Your task to perform on an android device: What's the weather? Image 0: 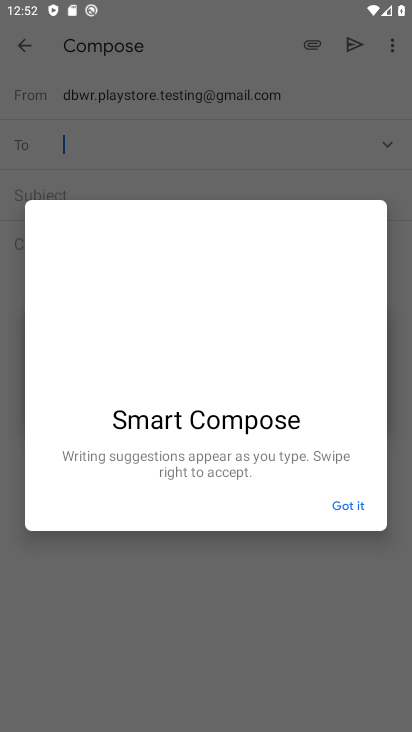
Step 0: press back button
Your task to perform on an android device: What's the weather? Image 1: 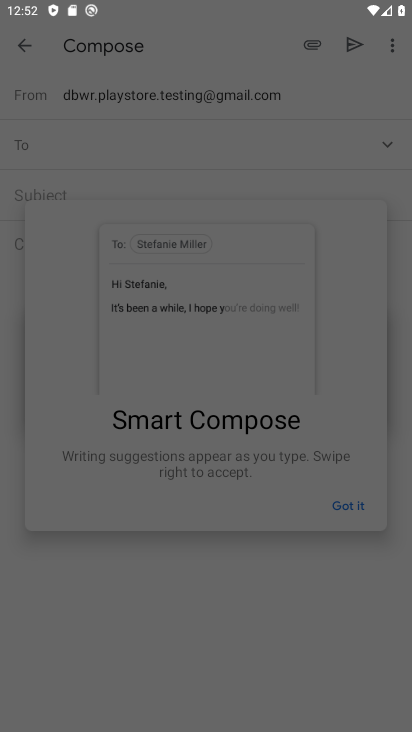
Step 1: press home button
Your task to perform on an android device: What's the weather? Image 2: 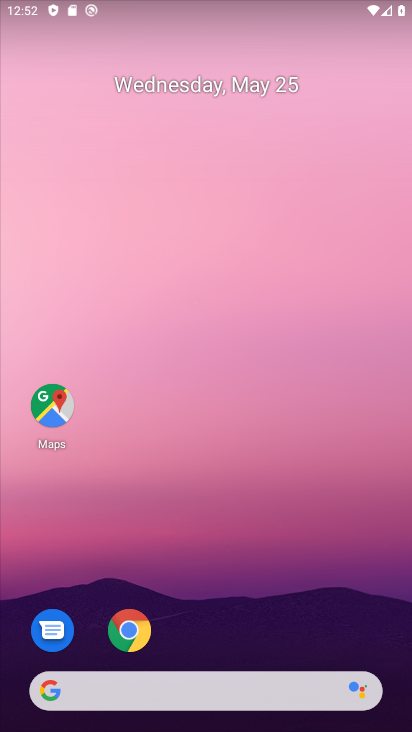
Step 2: drag from (13, 218) to (403, 268)
Your task to perform on an android device: What's the weather? Image 3: 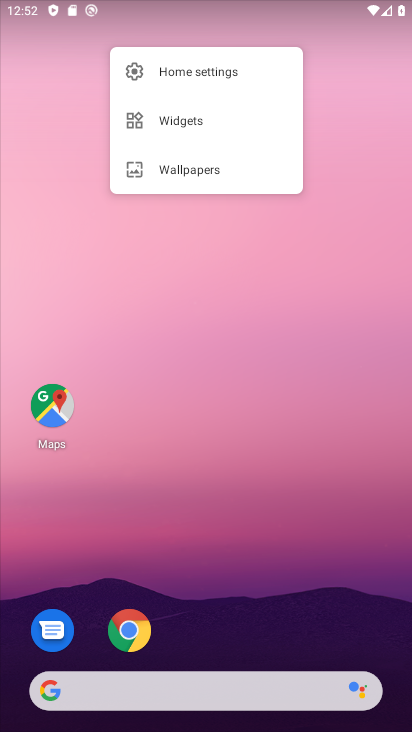
Step 3: drag from (191, 300) to (400, 442)
Your task to perform on an android device: What's the weather? Image 4: 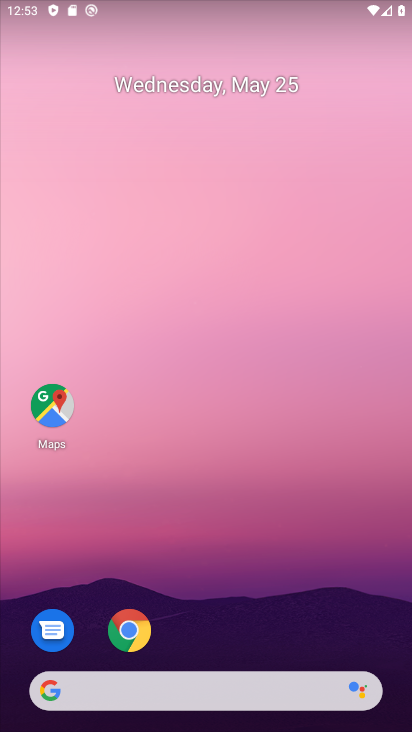
Step 4: click (168, 311)
Your task to perform on an android device: What's the weather? Image 5: 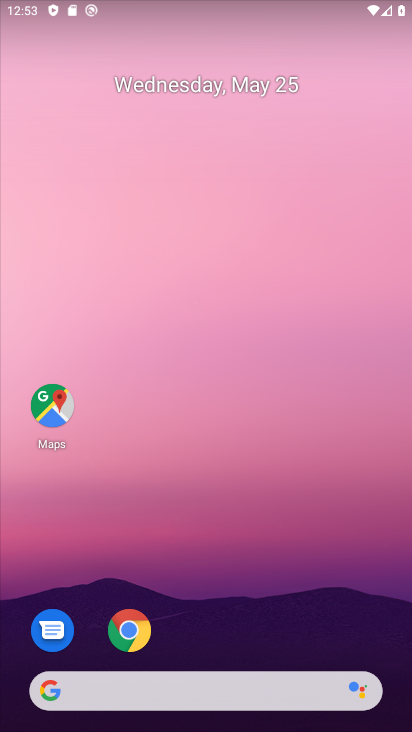
Step 5: click (169, 311)
Your task to perform on an android device: What's the weather? Image 6: 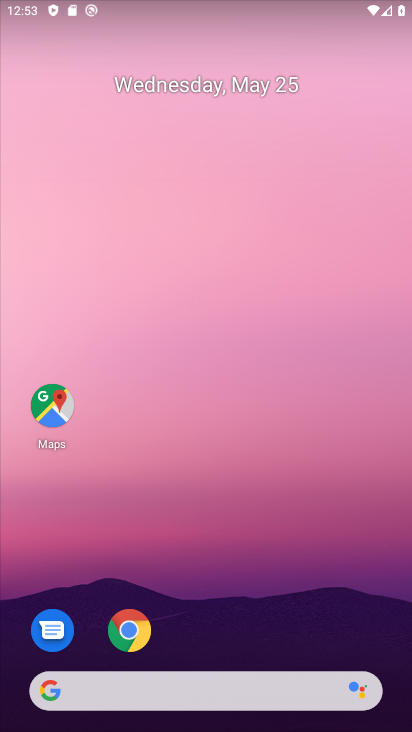
Step 6: drag from (356, 399) to (407, 333)
Your task to perform on an android device: What's the weather? Image 7: 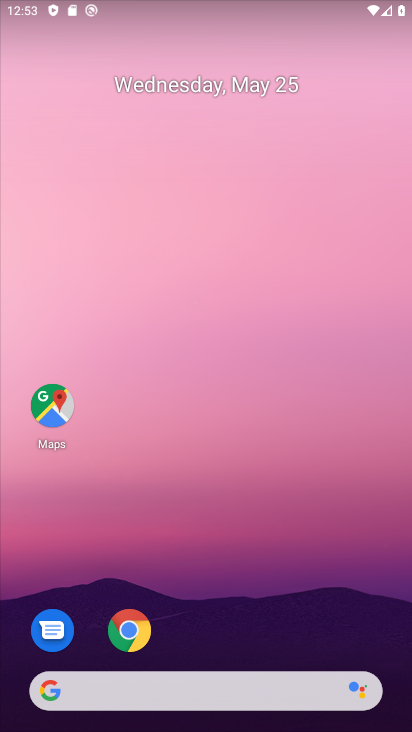
Step 7: click (368, 358)
Your task to perform on an android device: What's the weather? Image 8: 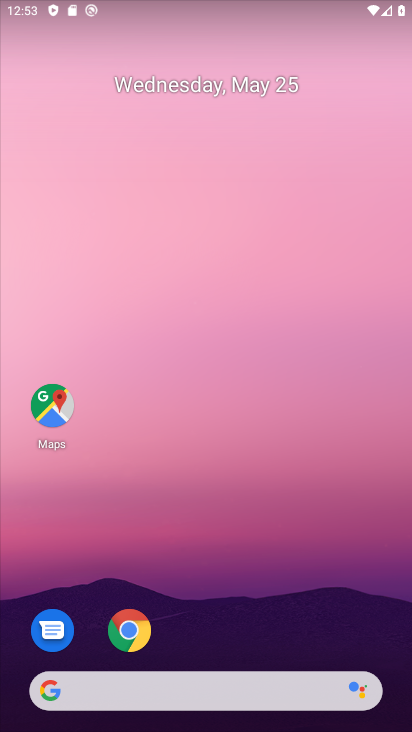
Step 8: task complete